Your task to perform on an android device: Open Google Maps Image 0: 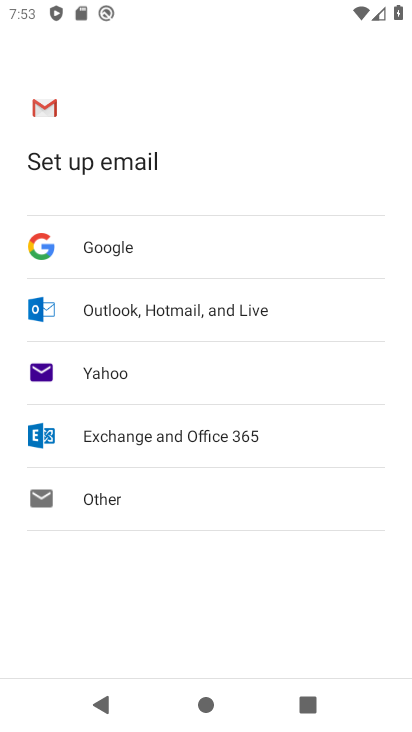
Step 0: press home button
Your task to perform on an android device: Open Google Maps Image 1: 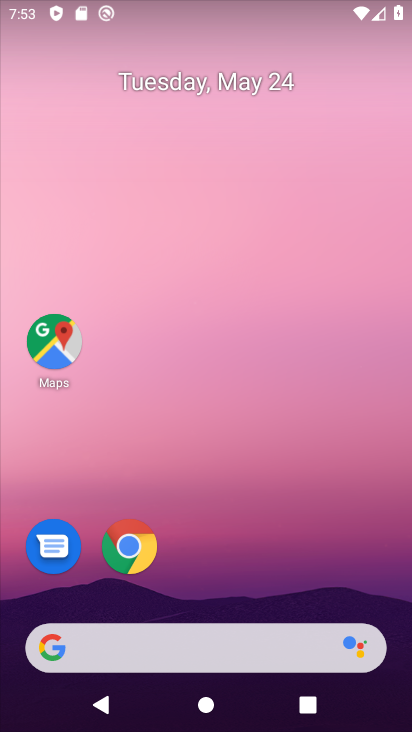
Step 1: click (51, 338)
Your task to perform on an android device: Open Google Maps Image 2: 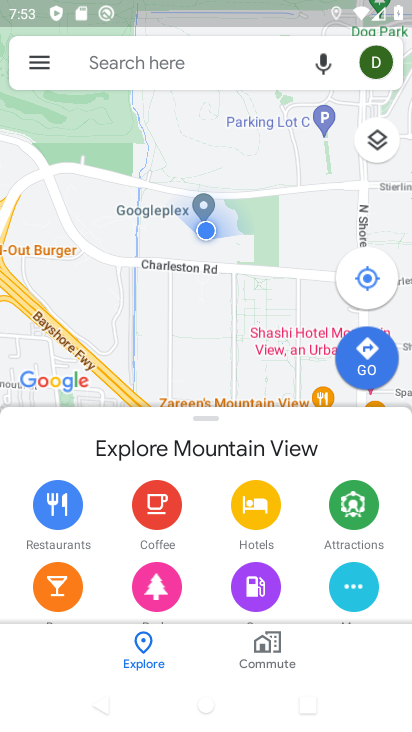
Step 2: task complete